Your task to perform on an android device: Do I have any events today? Image 0: 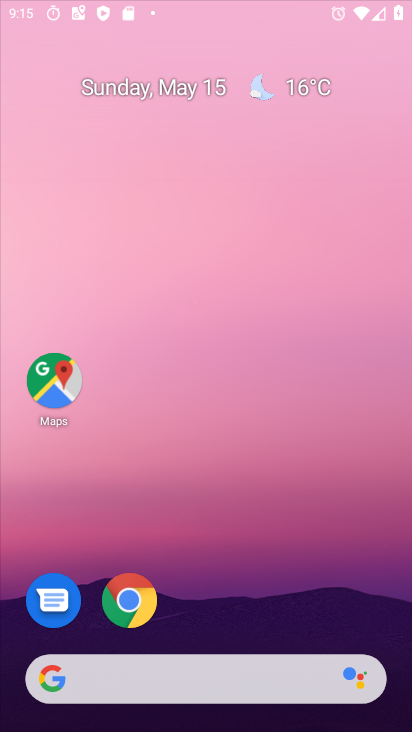
Step 0: press home button
Your task to perform on an android device: Do I have any events today? Image 1: 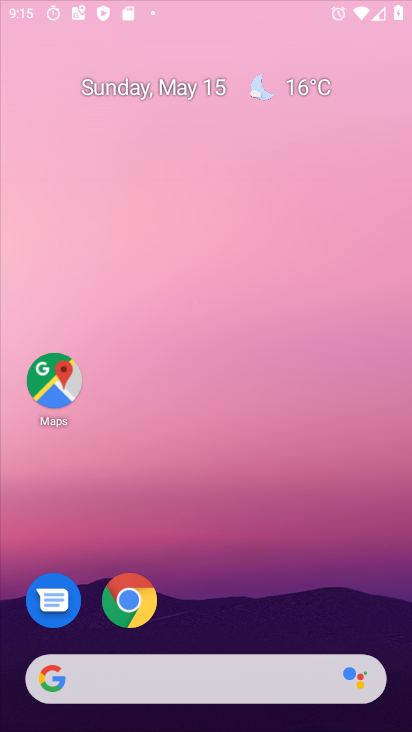
Step 1: click (260, 129)
Your task to perform on an android device: Do I have any events today? Image 2: 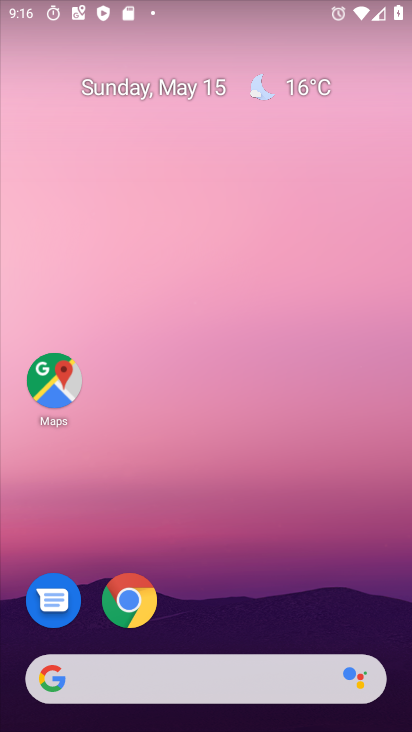
Step 2: drag from (240, 585) to (216, 120)
Your task to perform on an android device: Do I have any events today? Image 3: 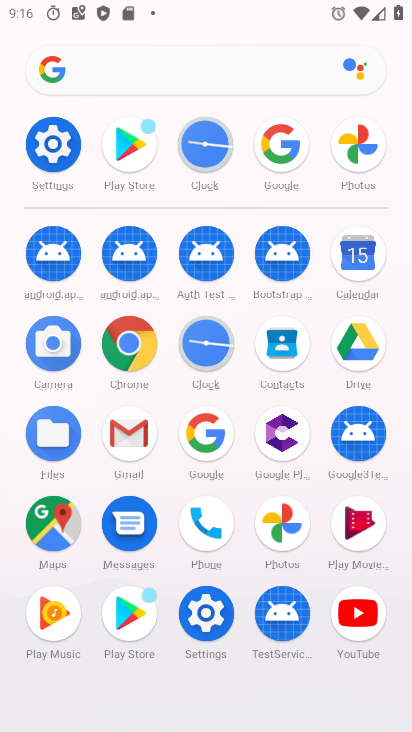
Step 3: click (361, 255)
Your task to perform on an android device: Do I have any events today? Image 4: 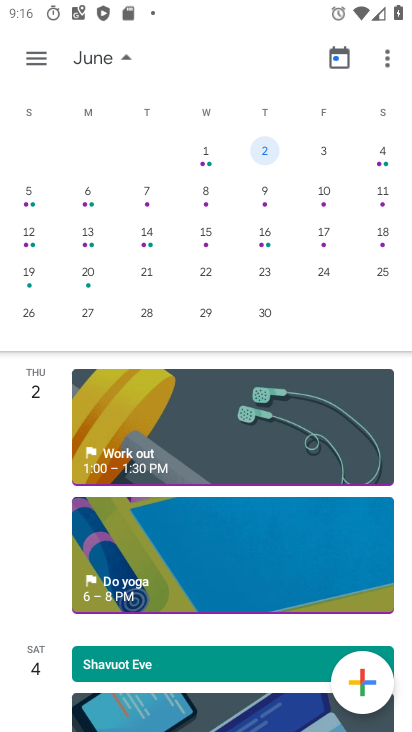
Step 4: drag from (44, 334) to (398, 267)
Your task to perform on an android device: Do I have any events today? Image 5: 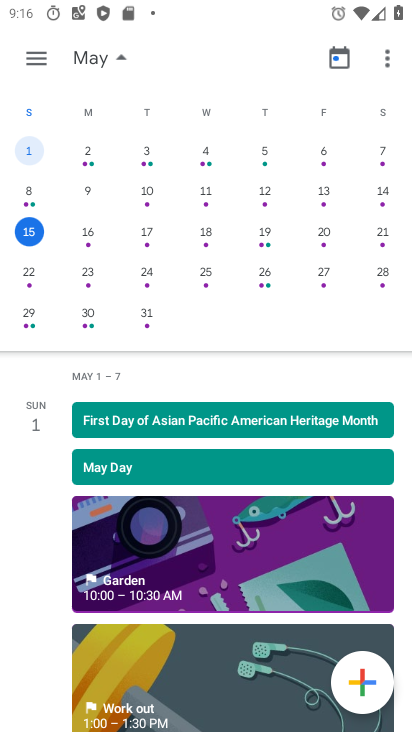
Step 5: click (25, 230)
Your task to perform on an android device: Do I have any events today? Image 6: 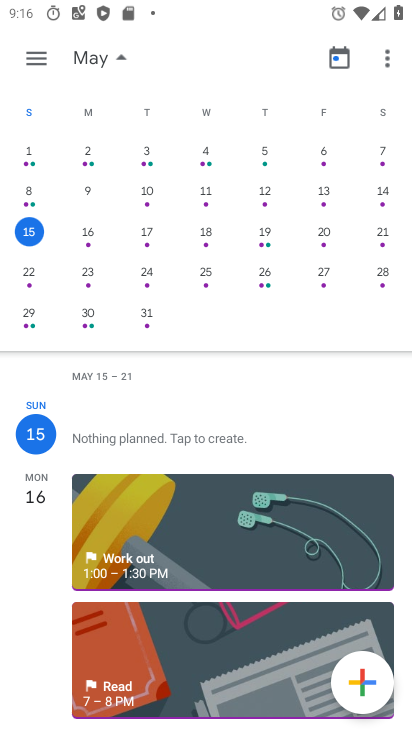
Step 6: task complete